Your task to perform on an android device: delete the emails in spam in the gmail app Image 0: 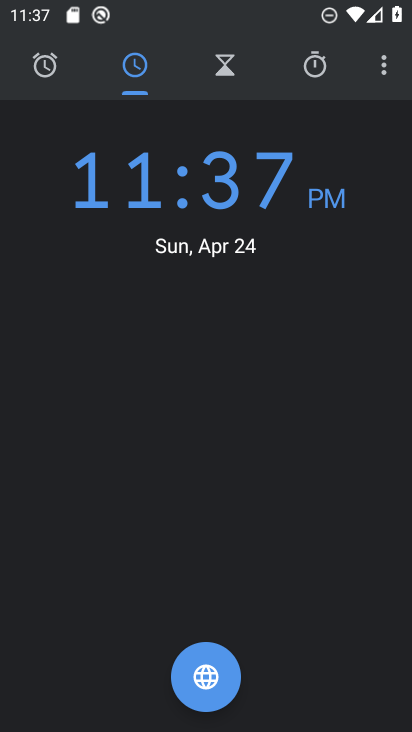
Step 0: press home button
Your task to perform on an android device: delete the emails in spam in the gmail app Image 1: 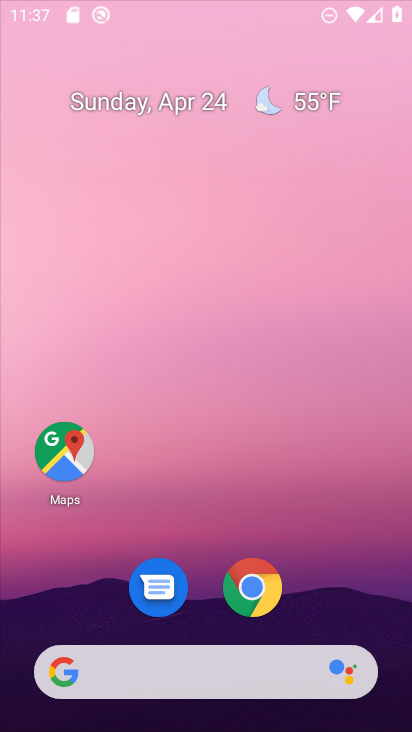
Step 1: drag from (302, 501) to (295, 157)
Your task to perform on an android device: delete the emails in spam in the gmail app Image 2: 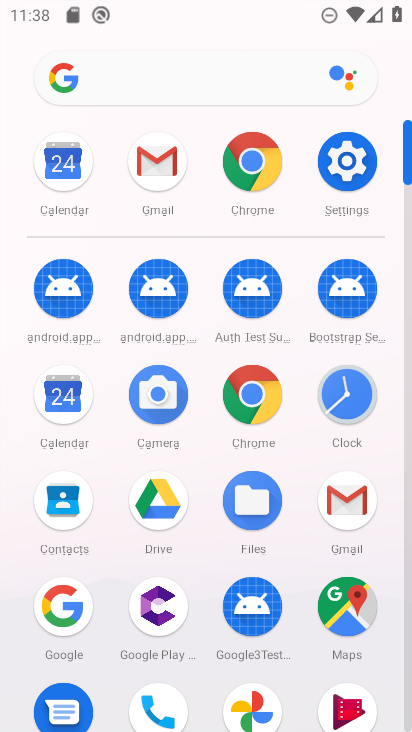
Step 2: click (350, 499)
Your task to perform on an android device: delete the emails in spam in the gmail app Image 3: 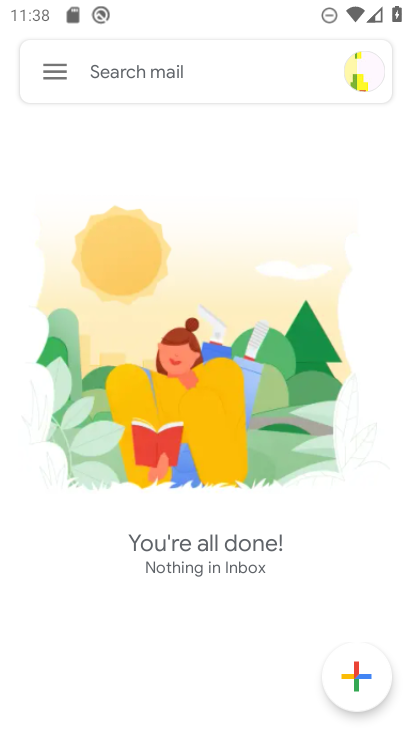
Step 3: click (52, 68)
Your task to perform on an android device: delete the emails in spam in the gmail app Image 4: 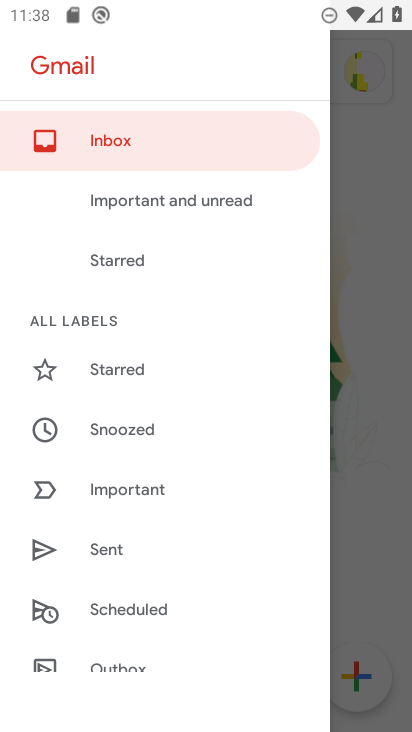
Step 4: drag from (260, 577) to (270, 189)
Your task to perform on an android device: delete the emails in spam in the gmail app Image 5: 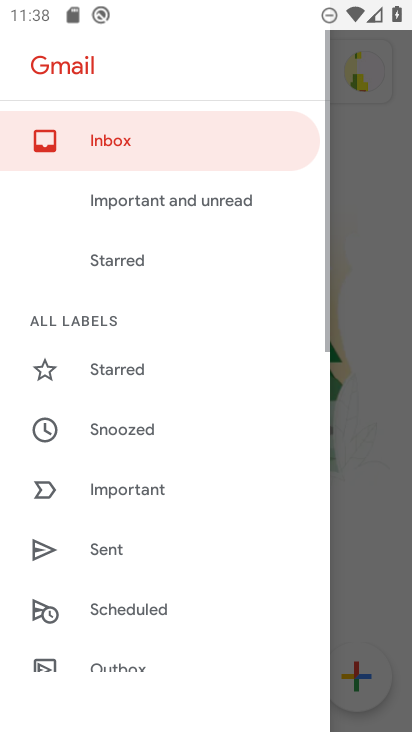
Step 5: drag from (68, 599) to (163, 268)
Your task to perform on an android device: delete the emails in spam in the gmail app Image 6: 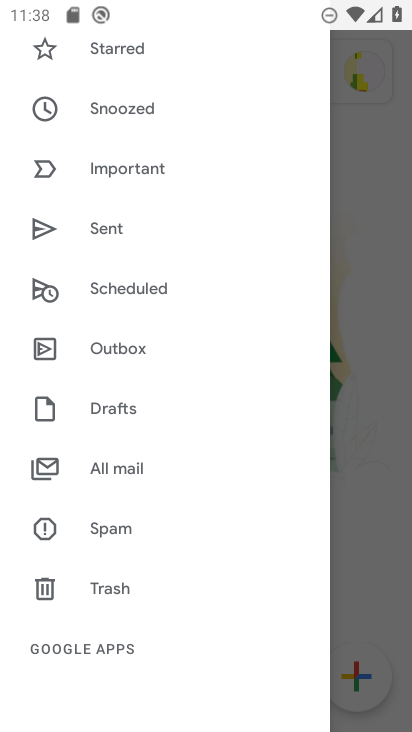
Step 6: click (105, 526)
Your task to perform on an android device: delete the emails in spam in the gmail app Image 7: 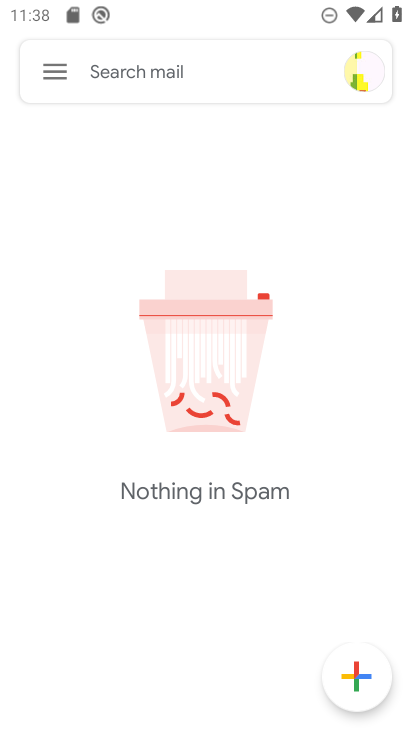
Step 7: task complete